Your task to perform on an android device: Open Google Image 0: 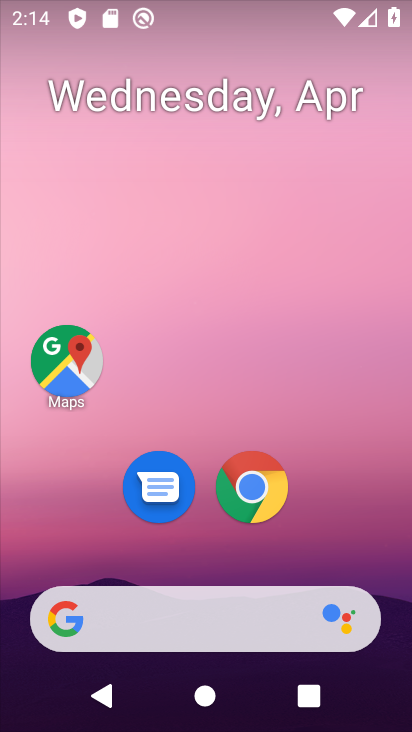
Step 0: drag from (215, 587) to (202, 187)
Your task to perform on an android device: Open Google Image 1: 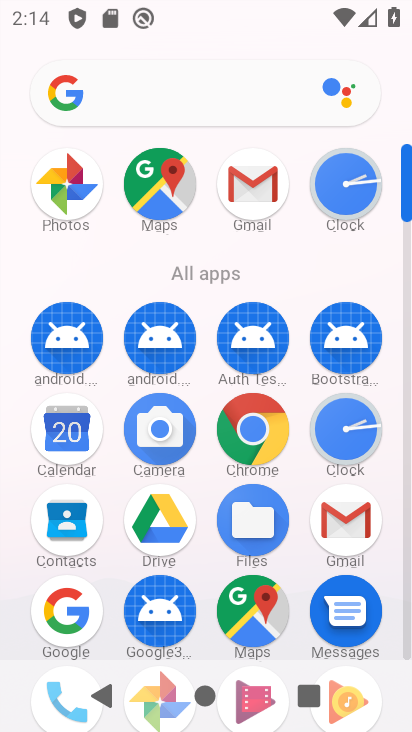
Step 1: click (61, 612)
Your task to perform on an android device: Open Google Image 2: 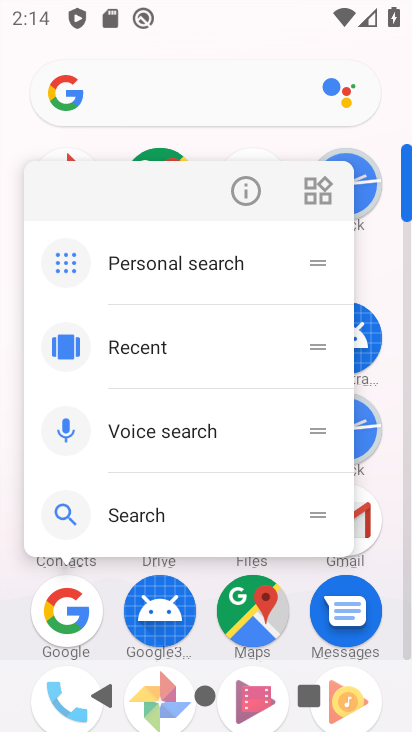
Step 2: click (20, 144)
Your task to perform on an android device: Open Google Image 3: 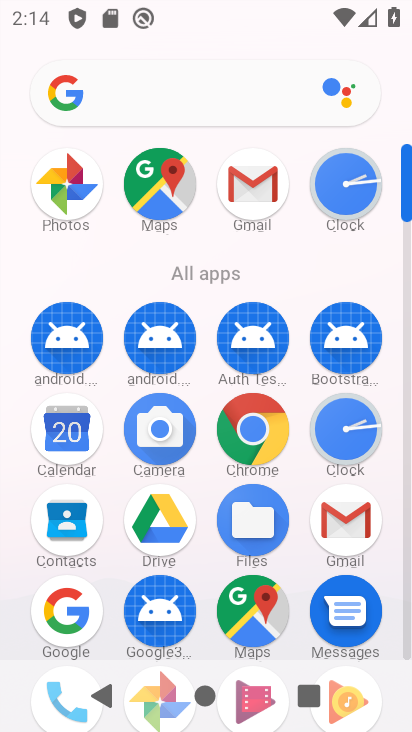
Step 3: click (76, 612)
Your task to perform on an android device: Open Google Image 4: 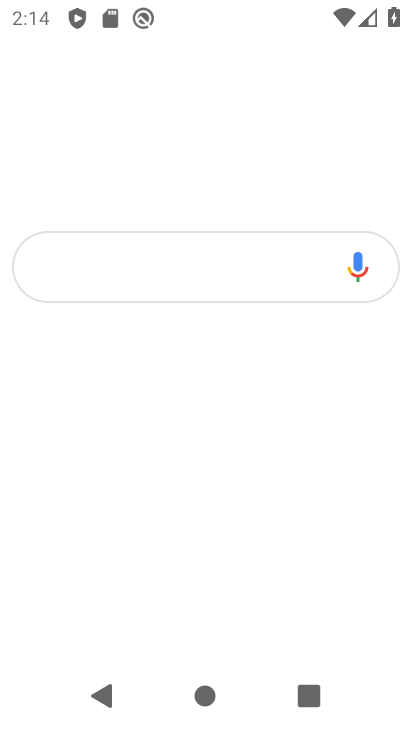
Step 4: click (53, 610)
Your task to perform on an android device: Open Google Image 5: 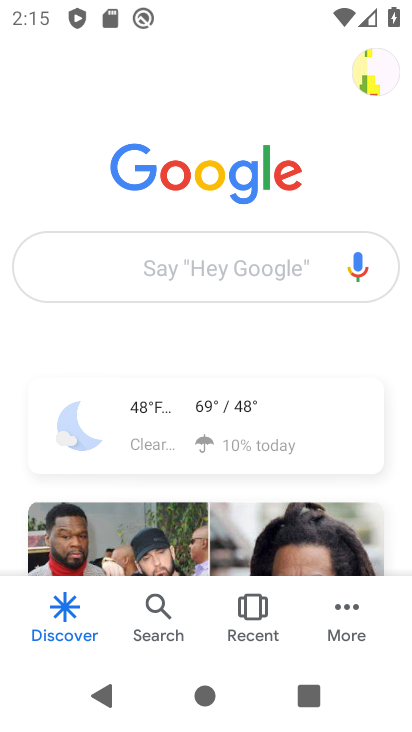
Step 5: task complete